Your task to perform on an android device: Go to Yahoo.com Image 0: 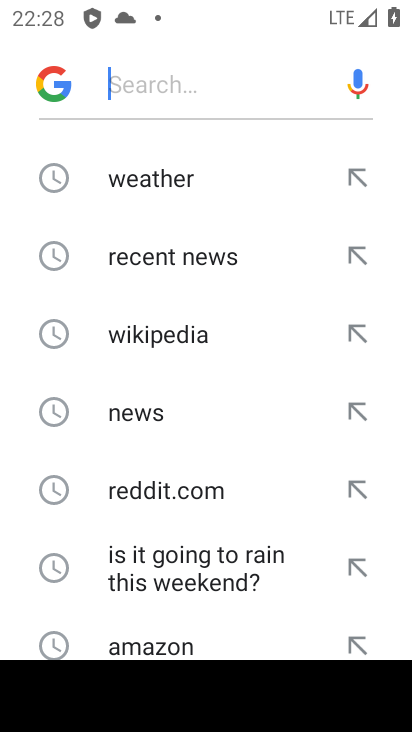
Step 0: press home button
Your task to perform on an android device: Go to Yahoo.com Image 1: 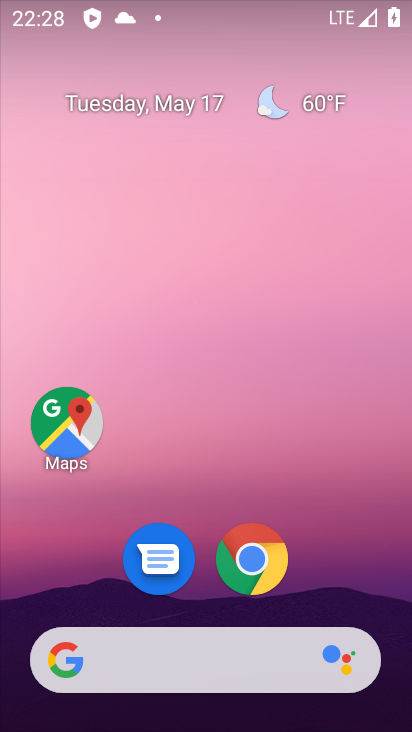
Step 1: click (258, 562)
Your task to perform on an android device: Go to Yahoo.com Image 2: 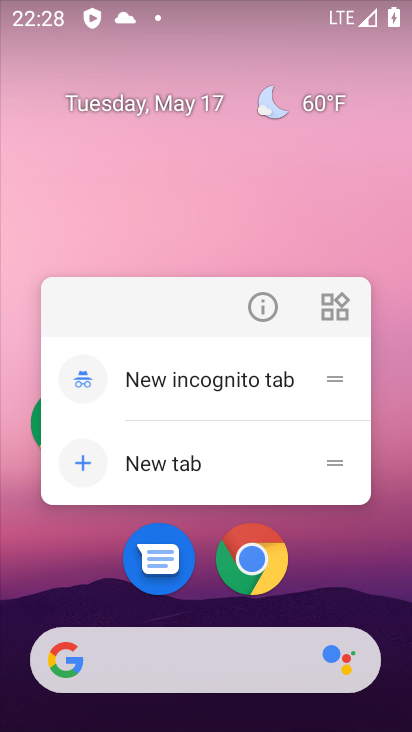
Step 2: click (252, 561)
Your task to perform on an android device: Go to Yahoo.com Image 3: 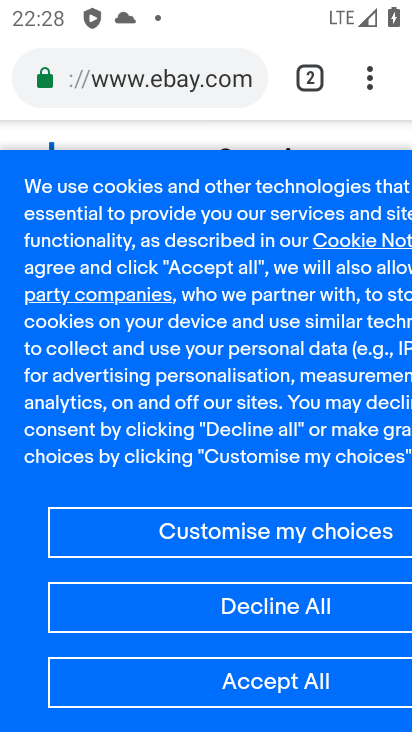
Step 3: click (206, 78)
Your task to perform on an android device: Go to Yahoo.com Image 4: 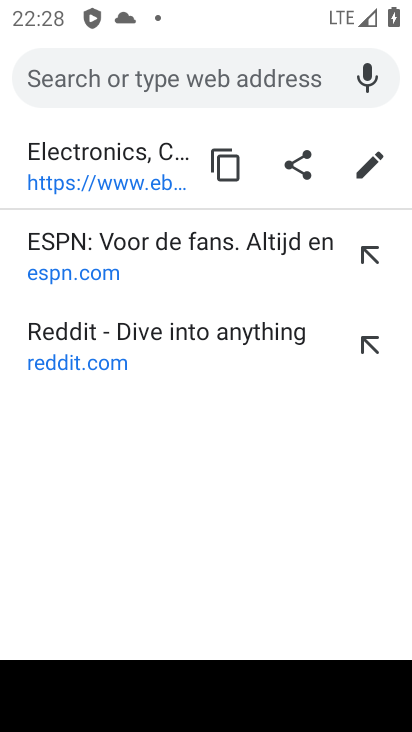
Step 4: type "yahoo.com"
Your task to perform on an android device: Go to Yahoo.com Image 5: 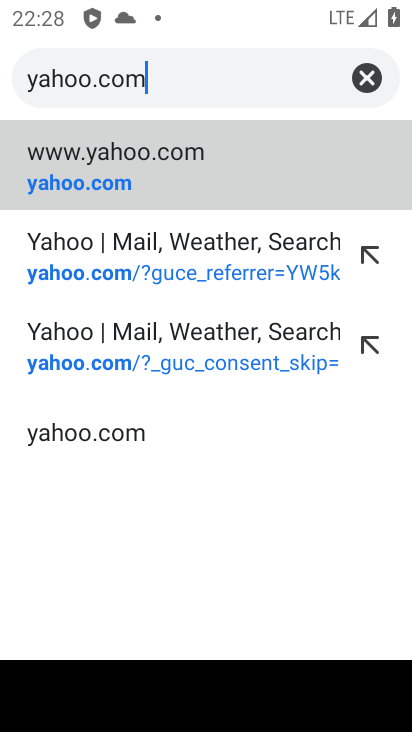
Step 5: click (98, 184)
Your task to perform on an android device: Go to Yahoo.com Image 6: 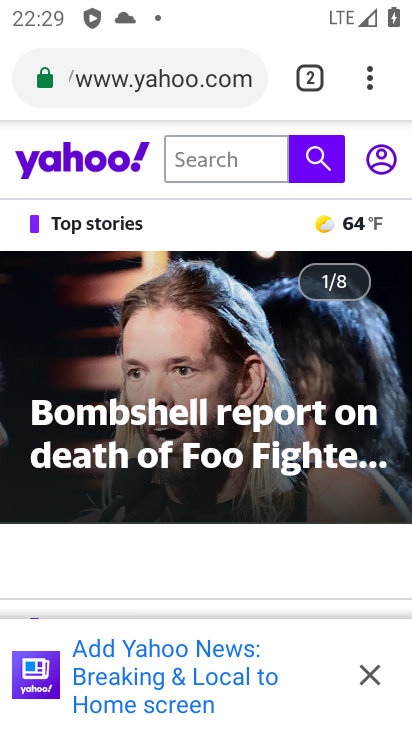
Step 6: task complete